Your task to perform on an android device: toggle priority inbox in the gmail app Image 0: 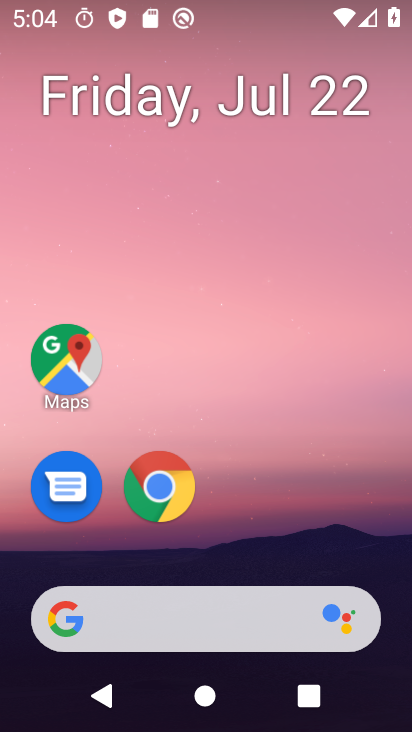
Step 0: drag from (398, 584) to (309, 98)
Your task to perform on an android device: toggle priority inbox in the gmail app Image 1: 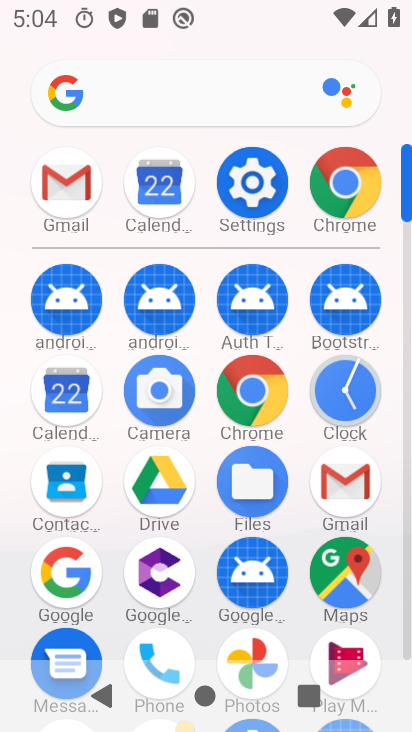
Step 1: click (62, 182)
Your task to perform on an android device: toggle priority inbox in the gmail app Image 2: 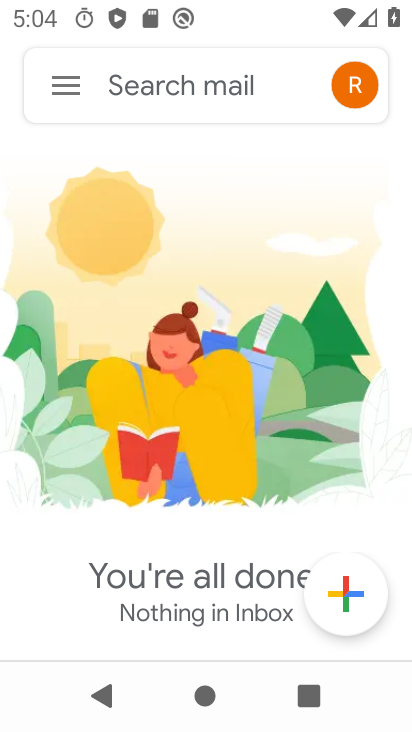
Step 2: click (67, 100)
Your task to perform on an android device: toggle priority inbox in the gmail app Image 3: 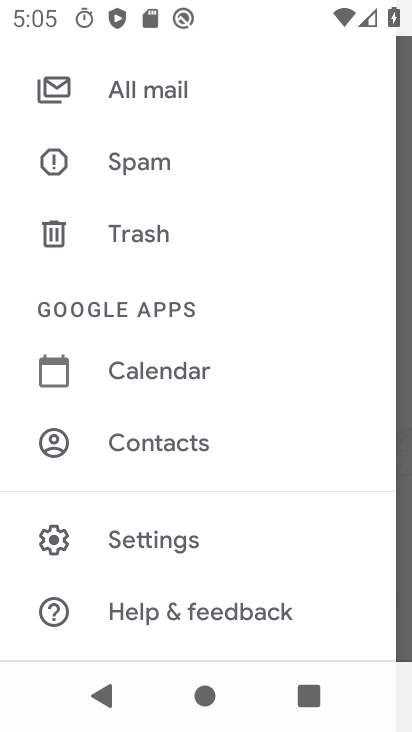
Step 3: click (183, 541)
Your task to perform on an android device: toggle priority inbox in the gmail app Image 4: 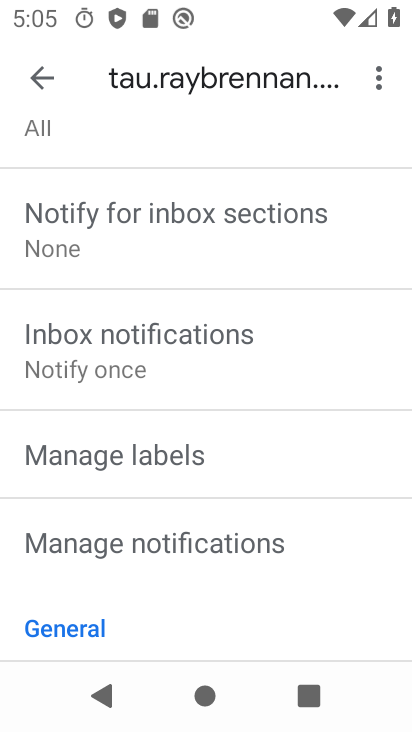
Step 4: drag from (222, 614) to (179, 199)
Your task to perform on an android device: toggle priority inbox in the gmail app Image 5: 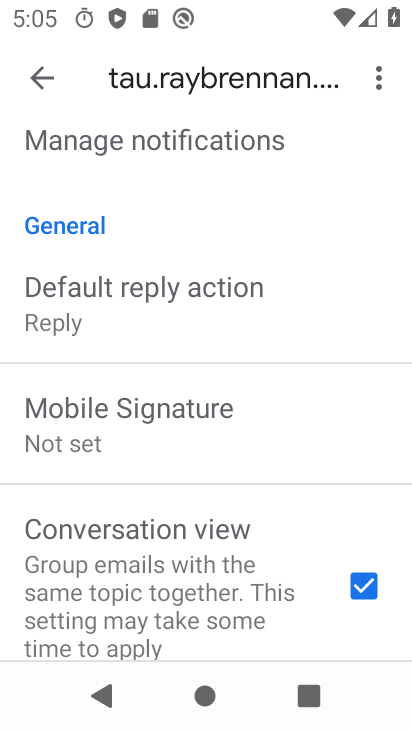
Step 5: drag from (220, 547) to (218, 643)
Your task to perform on an android device: toggle priority inbox in the gmail app Image 6: 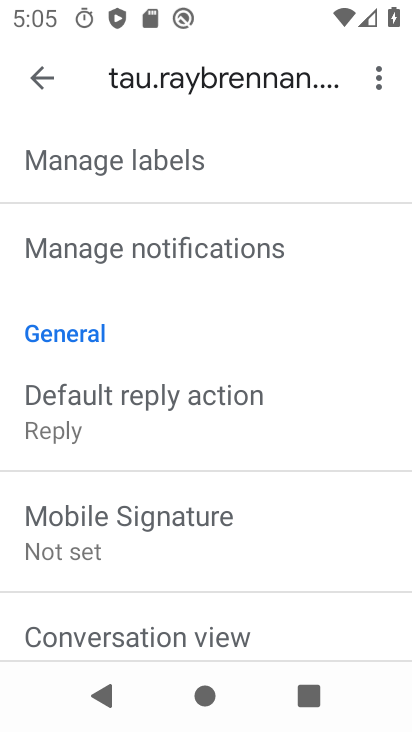
Step 6: drag from (195, 171) to (194, 646)
Your task to perform on an android device: toggle priority inbox in the gmail app Image 7: 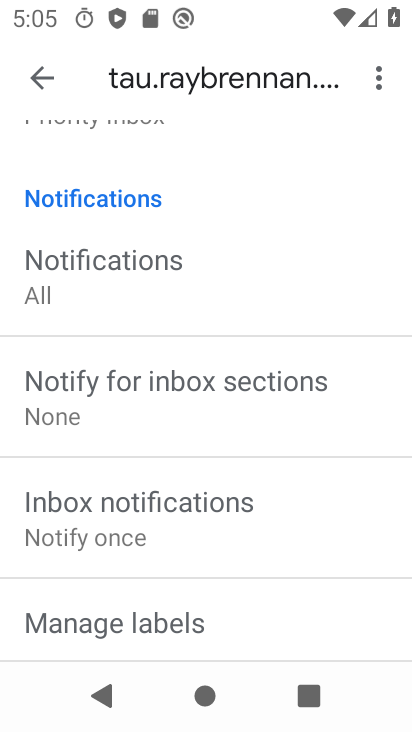
Step 7: drag from (169, 288) to (162, 664)
Your task to perform on an android device: toggle priority inbox in the gmail app Image 8: 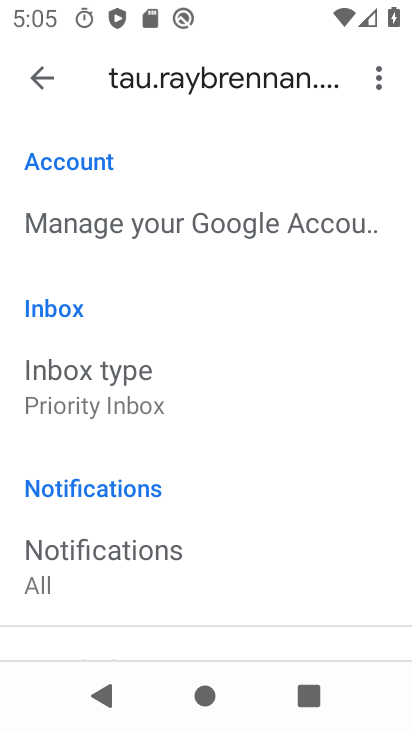
Step 8: click (138, 402)
Your task to perform on an android device: toggle priority inbox in the gmail app Image 9: 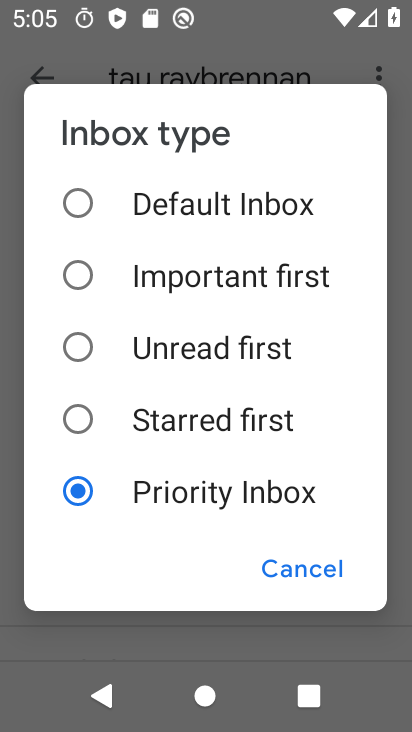
Step 9: click (143, 192)
Your task to perform on an android device: toggle priority inbox in the gmail app Image 10: 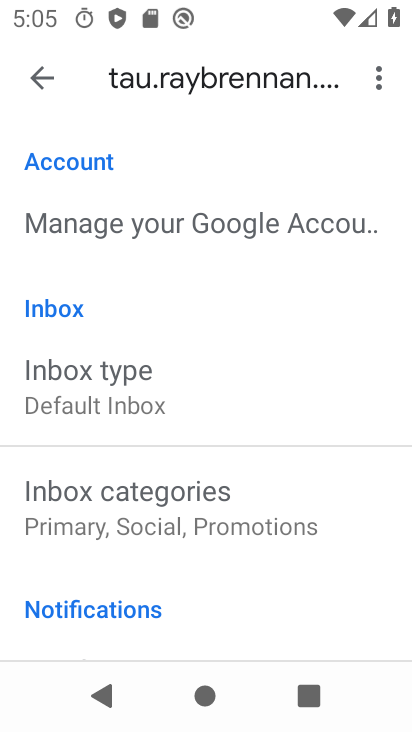
Step 10: task complete